Your task to perform on an android device: manage bookmarks in the chrome app Image 0: 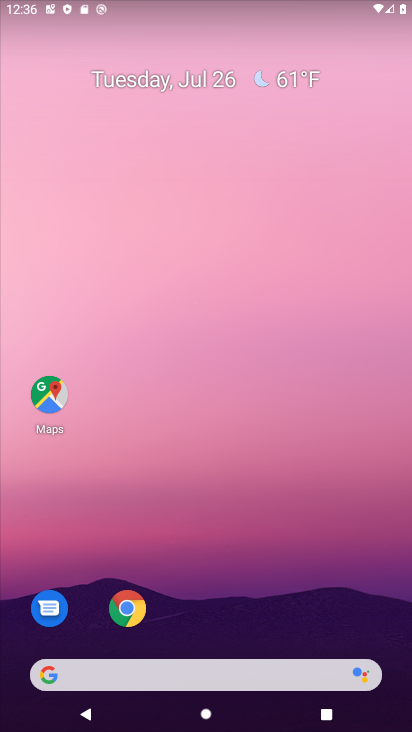
Step 0: drag from (326, 598) to (340, 149)
Your task to perform on an android device: manage bookmarks in the chrome app Image 1: 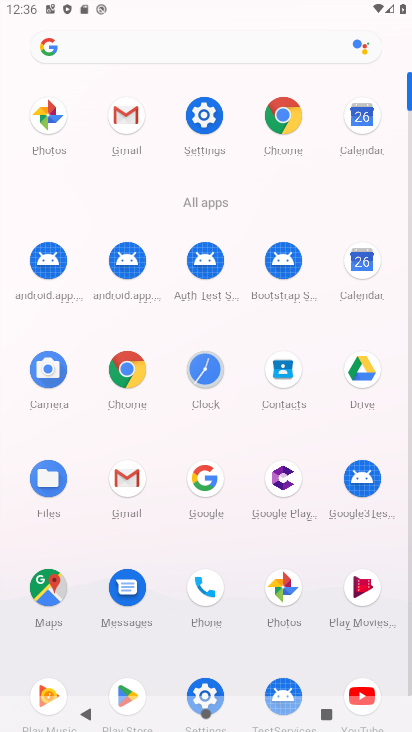
Step 1: click (286, 135)
Your task to perform on an android device: manage bookmarks in the chrome app Image 2: 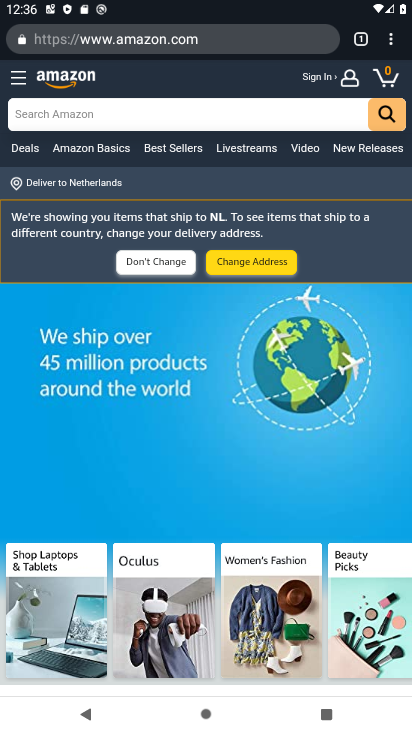
Step 2: click (392, 38)
Your task to perform on an android device: manage bookmarks in the chrome app Image 3: 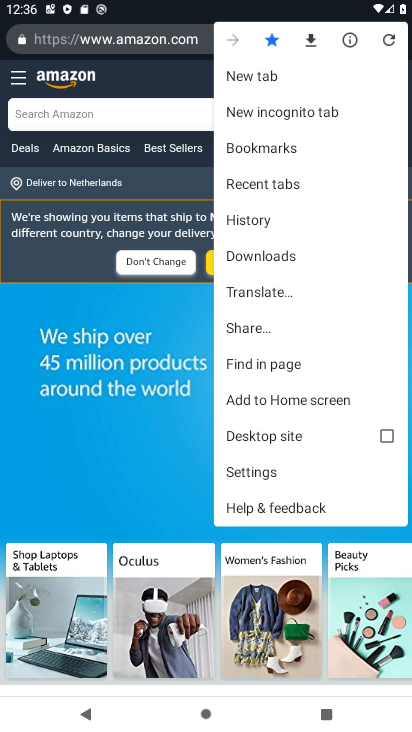
Step 3: click (297, 149)
Your task to perform on an android device: manage bookmarks in the chrome app Image 4: 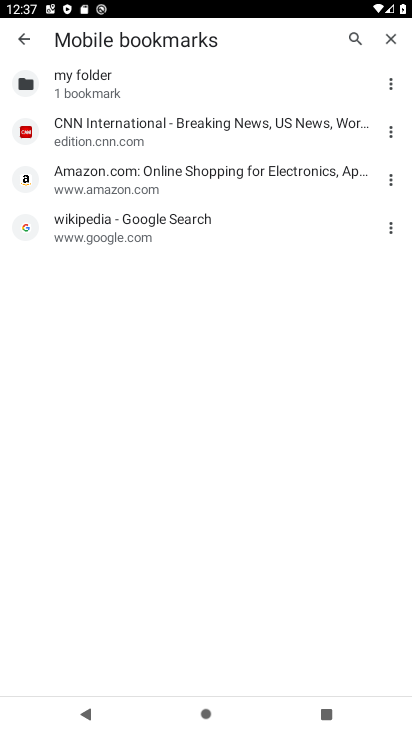
Step 4: click (392, 132)
Your task to perform on an android device: manage bookmarks in the chrome app Image 5: 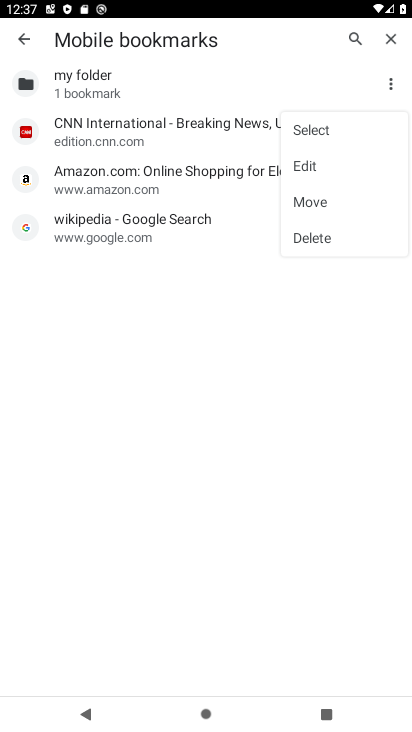
Step 5: click (323, 167)
Your task to perform on an android device: manage bookmarks in the chrome app Image 6: 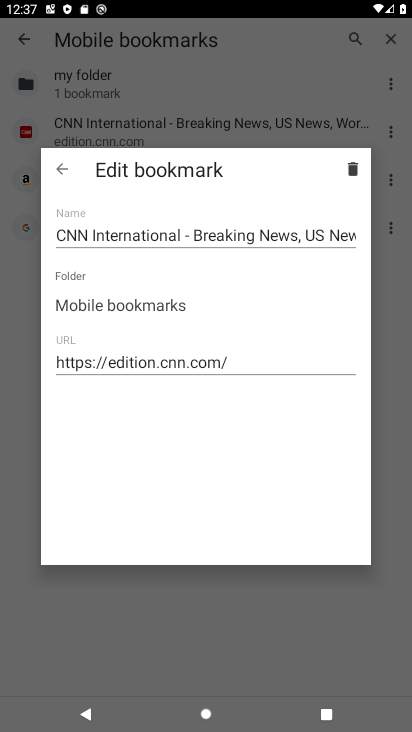
Step 6: click (178, 239)
Your task to perform on an android device: manage bookmarks in the chrome app Image 7: 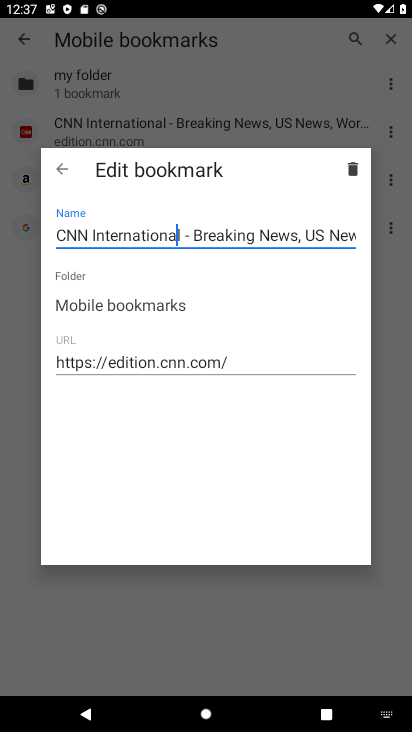
Step 7: type "l"
Your task to perform on an android device: manage bookmarks in the chrome app Image 8: 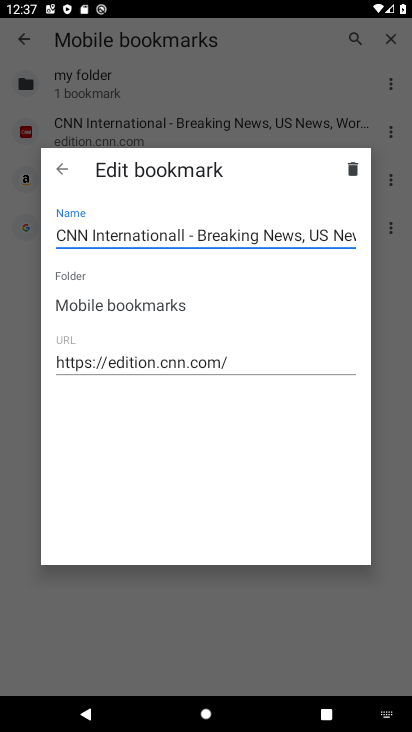
Step 8: click (57, 173)
Your task to perform on an android device: manage bookmarks in the chrome app Image 9: 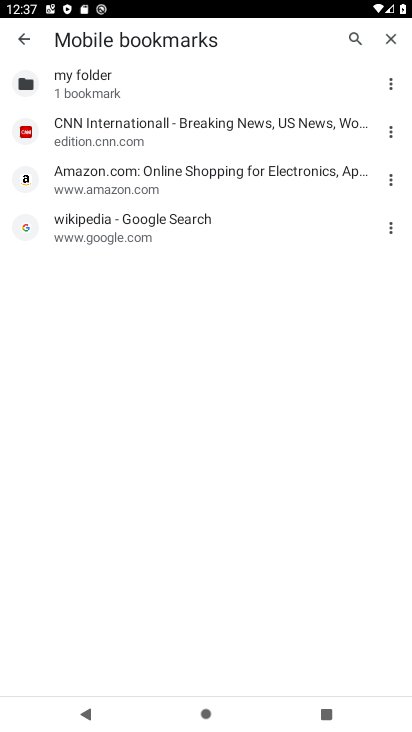
Step 9: task complete